Your task to perform on an android device: check battery use Image 0: 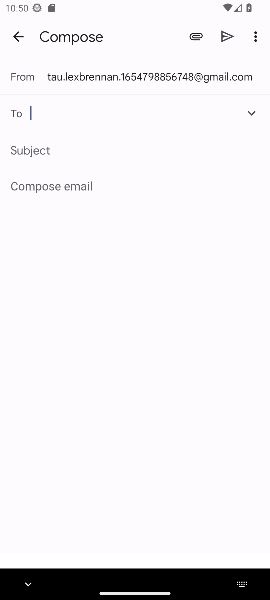
Step 0: press home button
Your task to perform on an android device: check battery use Image 1: 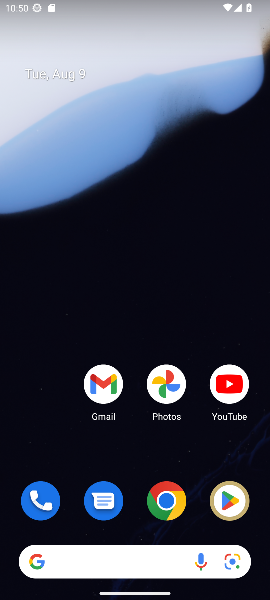
Step 1: drag from (120, 532) to (128, 125)
Your task to perform on an android device: check battery use Image 2: 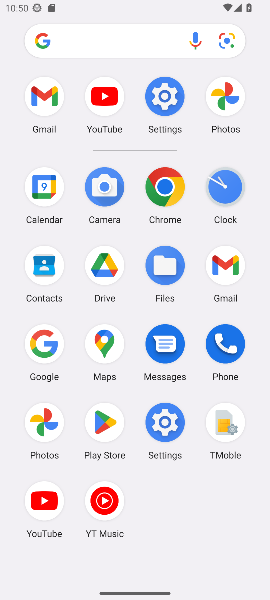
Step 2: click (172, 96)
Your task to perform on an android device: check battery use Image 3: 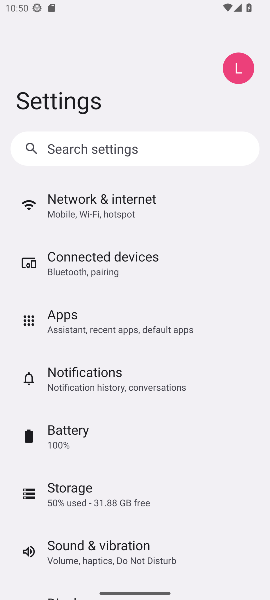
Step 3: drag from (67, 510) to (67, 483)
Your task to perform on an android device: check battery use Image 4: 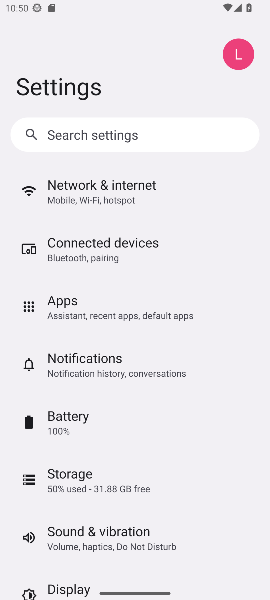
Step 4: click (67, 428)
Your task to perform on an android device: check battery use Image 5: 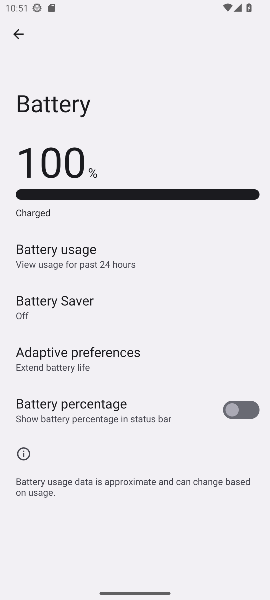
Step 5: task complete